Your task to perform on an android device: turn off translation in the chrome app Image 0: 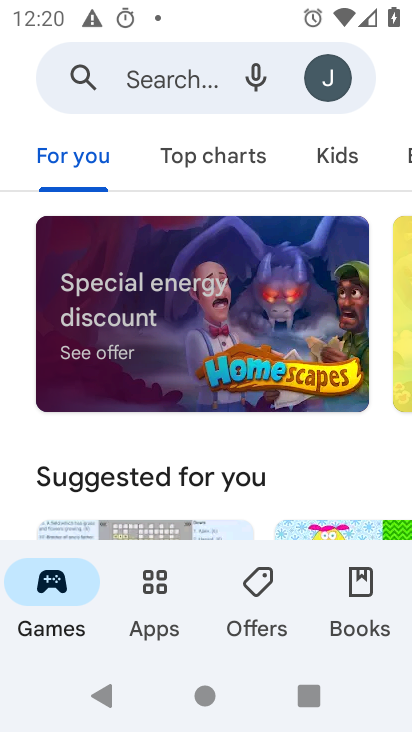
Step 0: press back button
Your task to perform on an android device: turn off translation in the chrome app Image 1: 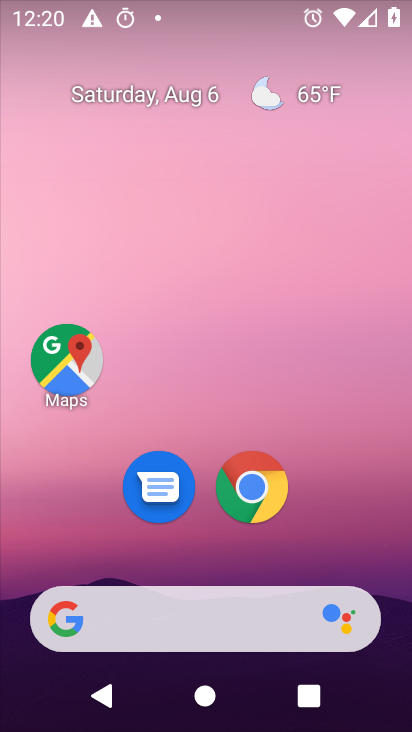
Step 1: click (273, 484)
Your task to perform on an android device: turn off translation in the chrome app Image 2: 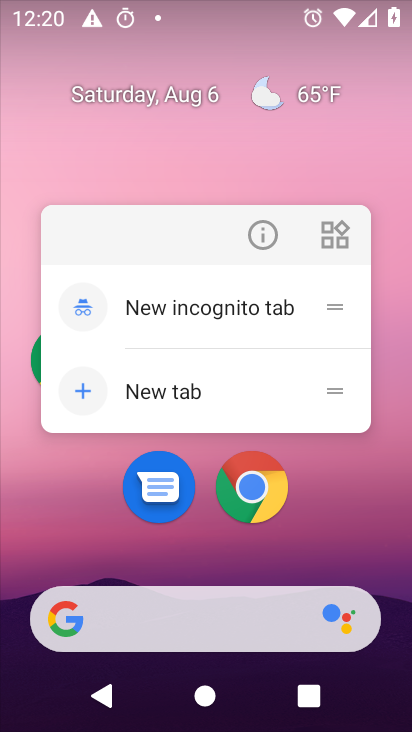
Step 2: click (250, 487)
Your task to perform on an android device: turn off translation in the chrome app Image 3: 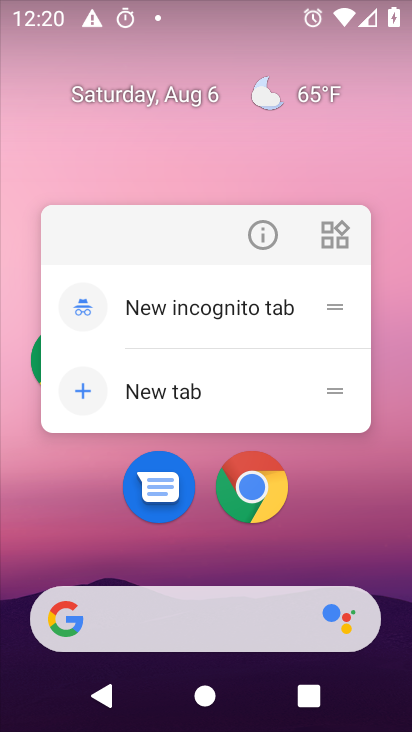
Step 3: click (260, 485)
Your task to perform on an android device: turn off translation in the chrome app Image 4: 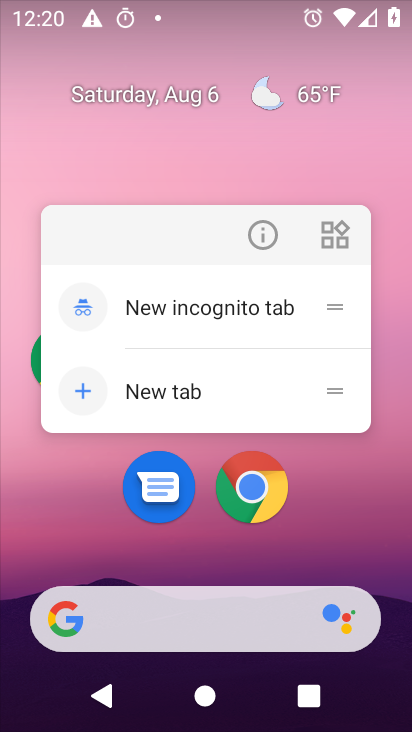
Step 4: click (261, 491)
Your task to perform on an android device: turn off translation in the chrome app Image 5: 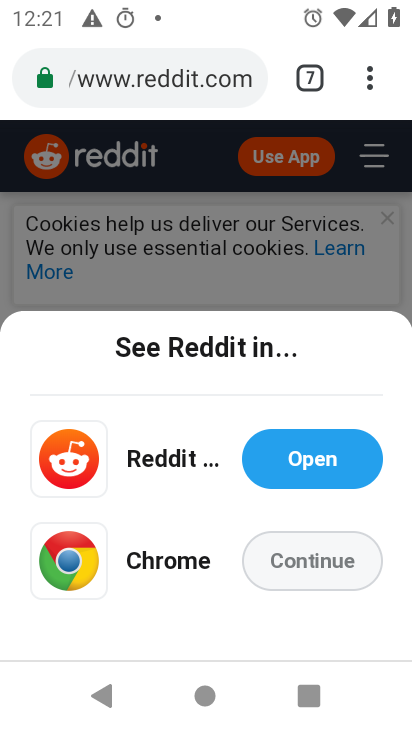
Step 5: drag from (379, 68) to (108, 559)
Your task to perform on an android device: turn off translation in the chrome app Image 6: 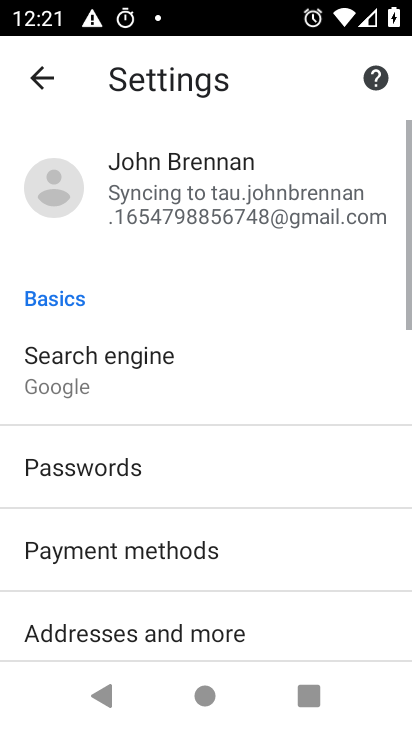
Step 6: drag from (169, 586) to (264, 6)
Your task to perform on an android device: turn off translation in the chrome app Image 7: 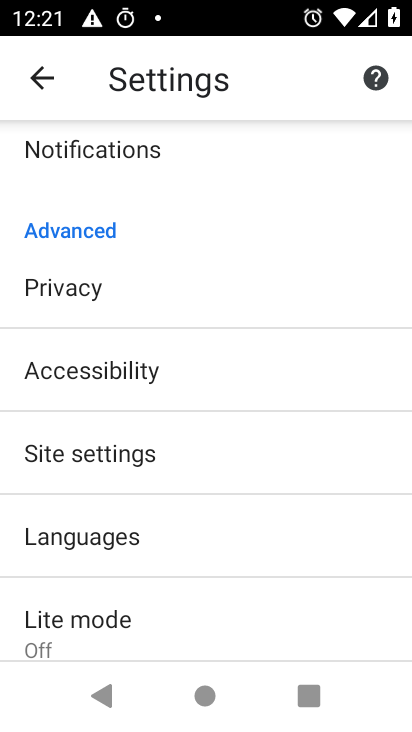
Step 7: click (127, 459)
Your task to perform on an android device: turn off translation in the chrome app Image 8: 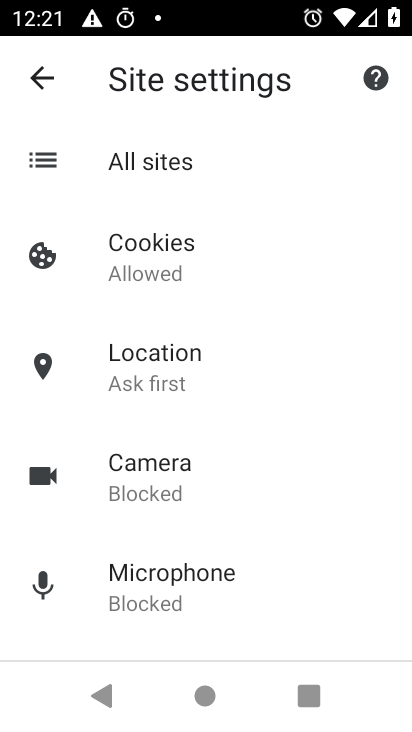
Step 8: drag from (205, 609) to (229, 77)
Your task to perform on an android device: turn off translation in the chrome app Image 9: 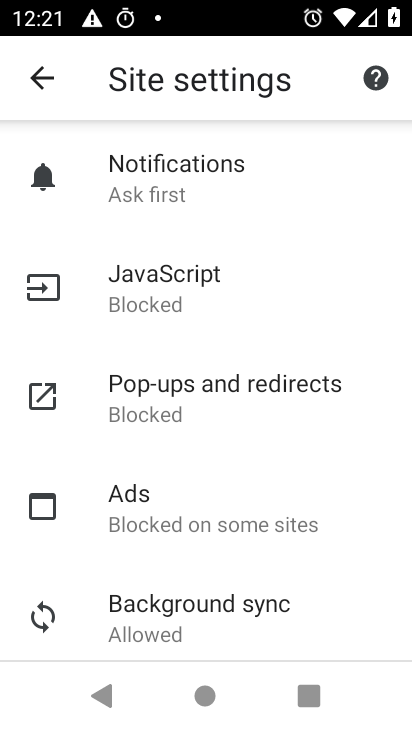
Step 9: drag from (203, 260) to (233, 726)
Your task to perform on an android device: turn off translation in the chrome app Image 10: 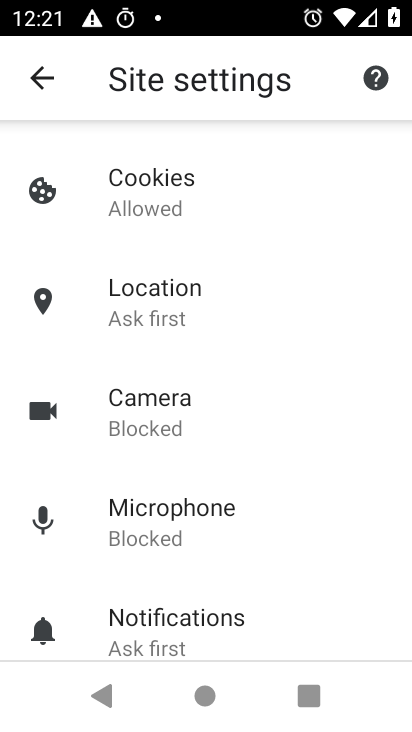
Step 10: drag from (201, 180) to (190, 713)
Your task to perform on an android device: turn off translation in the chrome app Image 11: 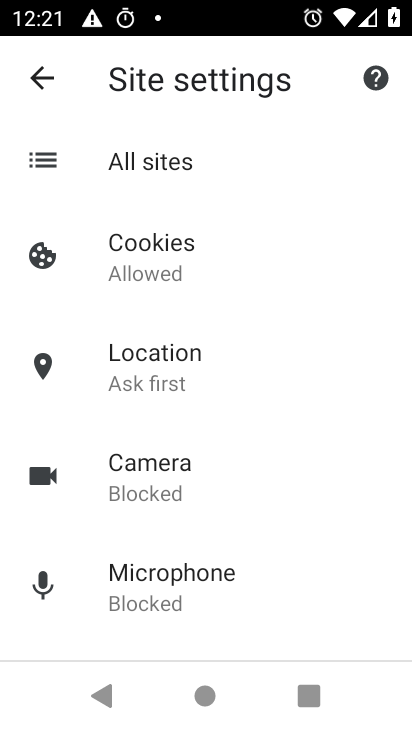
Step 11: click (40, 64)
Your task to perform on an android device: turn off translation in the chrome app Image 12: 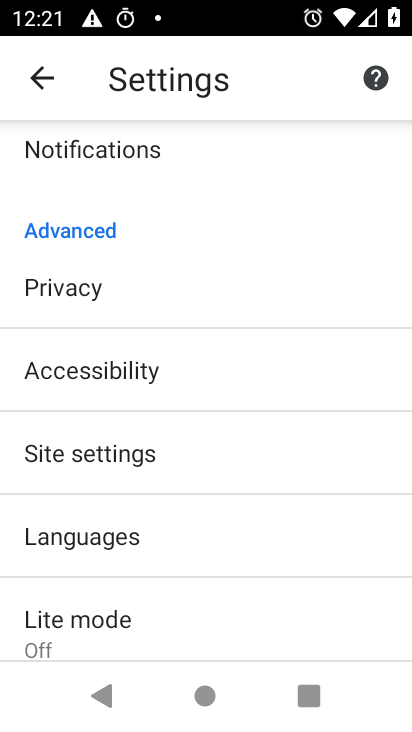
Step 12: click (123, 533)
Your task to perform on an android device: turn off translation in the chrome app Image 13: 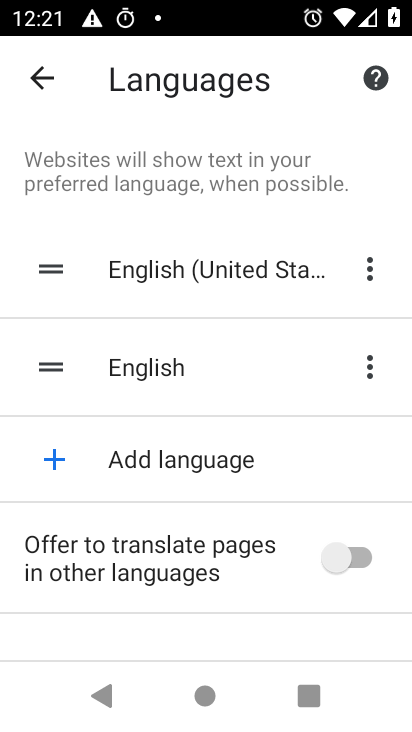
Step 13: task complete